Your task to perform on an android device: turn on showing notifications on the lock screen Image 0: 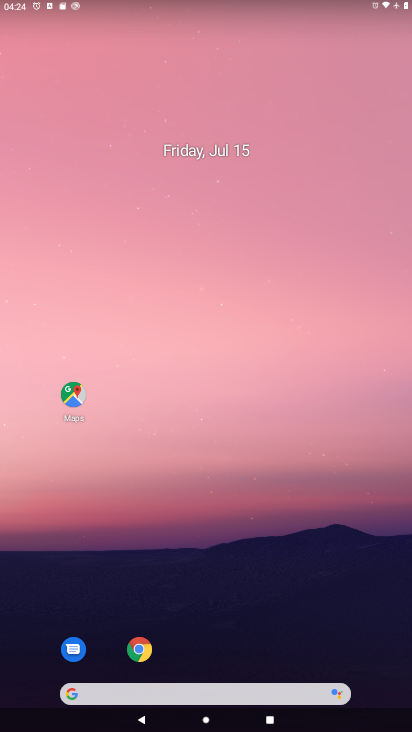
Step 0: drag from (383, 675) to (328, 61)
Your task to perform on an android device: turn on showing notifications on the lock screen Image 1: 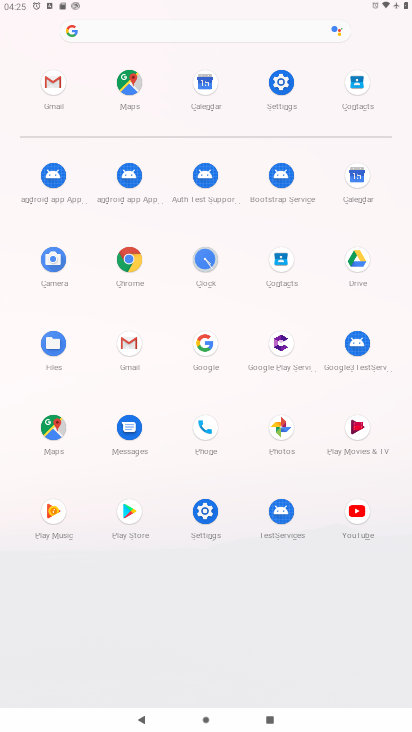
Step 1: click (205, 512)
Your task to perform on an android device: turn on showing notifications on the lock screen Image 2: 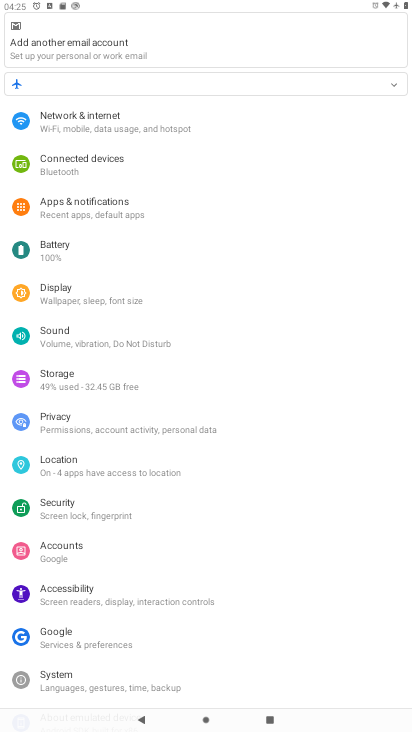
Step 2: click (74, 203)
Your task to perform on an android device: turn on showing notifications on the lock screen Image 3: 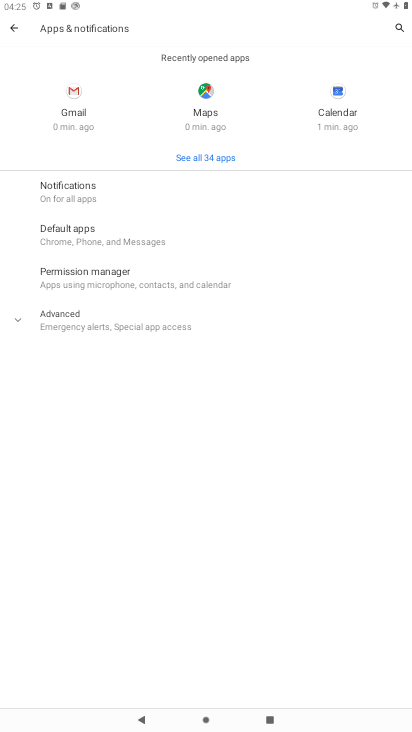
Step 3: click (73, 185)
Your task to perform on an android device: turn on showing notifications on the lock screen Image 4: 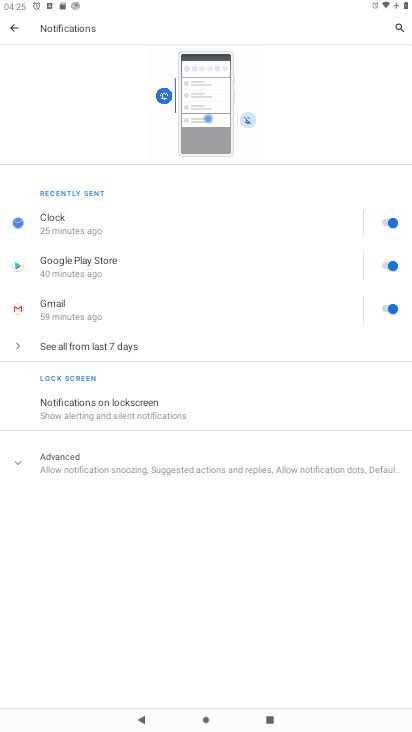
Step 4: click (89, 391)
Your task to perform on an android device: turn on showing notifications on the lock screen Image 5: 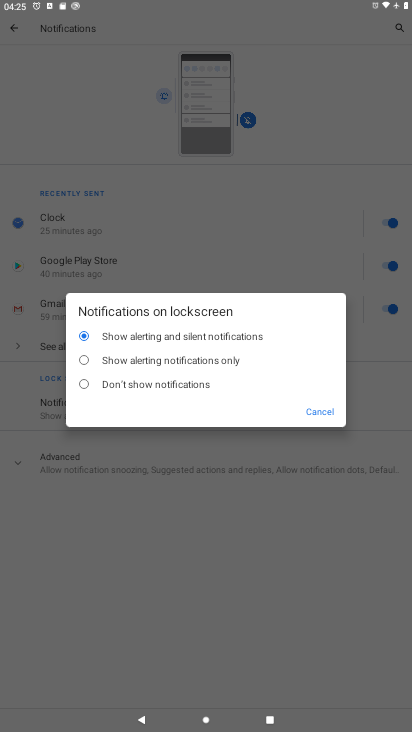
Step 5: task complete